Your task to perform on an android device: Open internet settings Image 0: 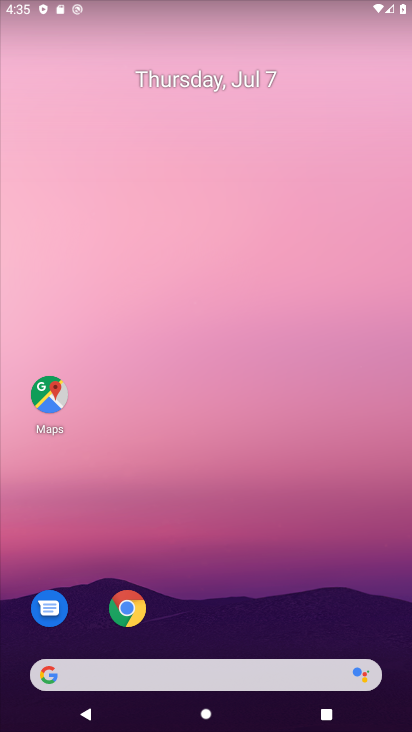
Step 0: drag from (231, 632) to (236, 70)
Your task to perform on an android device: Open internet settings Image 1: 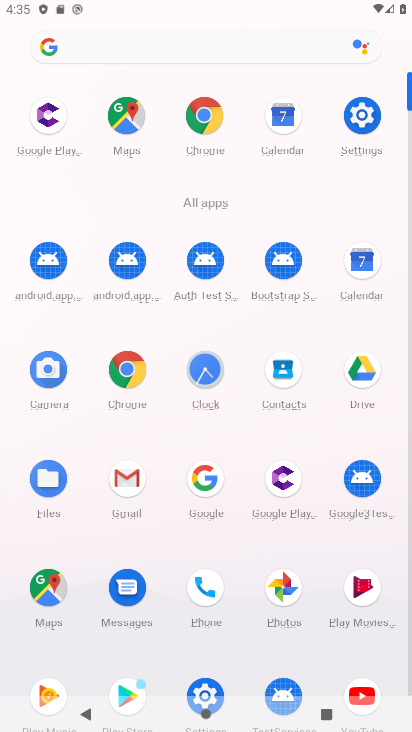
Step 1: click (360, 105)
Your task to perform on an android device: Open internet settings Image 2: 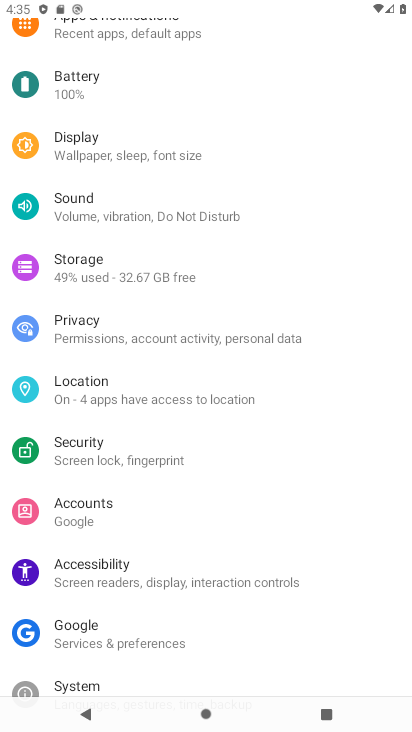
Step 2: drag from (139, 103) to (152, 553)
Your task to perform on an android device: Open internet settings Image 3: 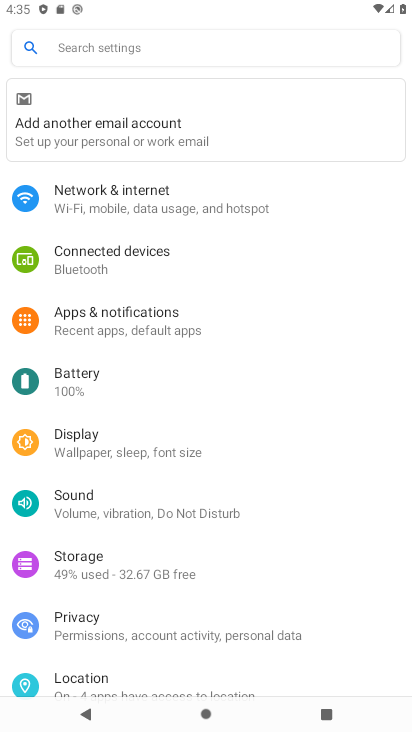
Step 3: click (177, 189)
Your task to perform on an android device: Open internet settings Image 4: 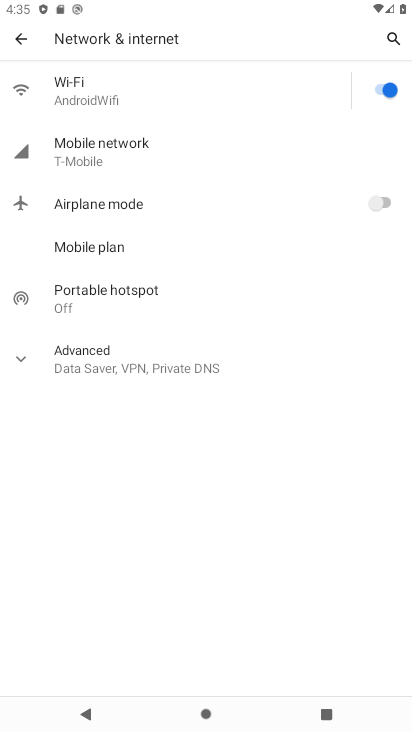
Step 4: click (28, 369)
Your task to perform on an android device: Open internet settings Image 5: 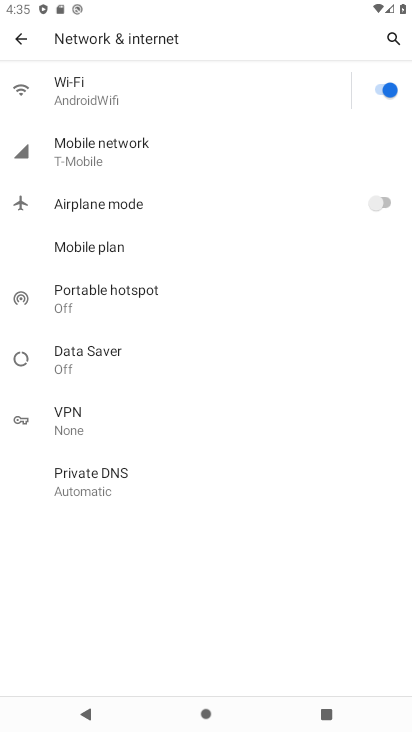
Step 5: task complete